Your task to perform on an android device: check the backup settings in the google photos Image 0: 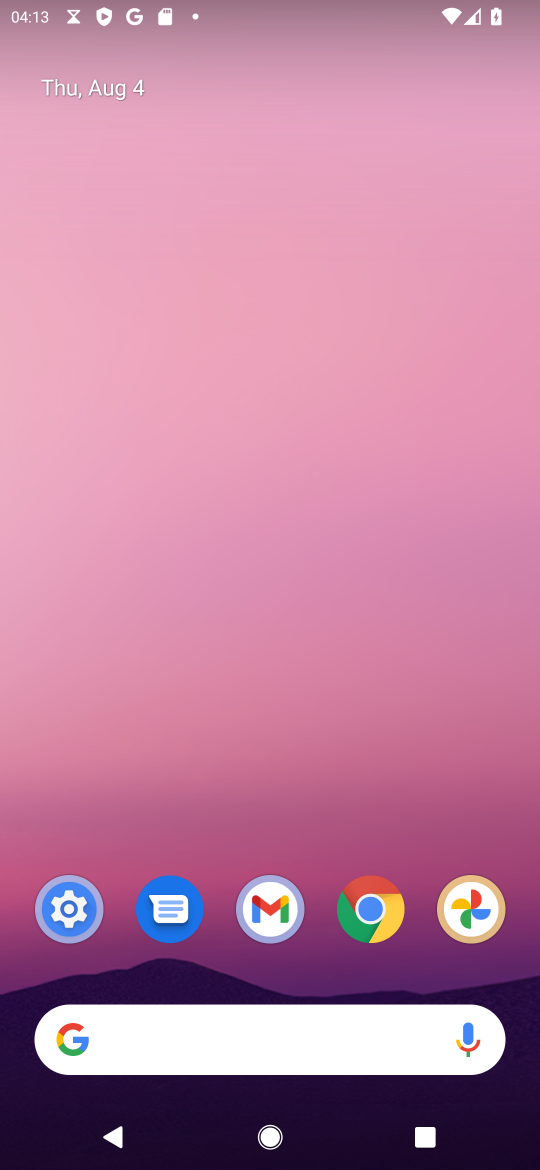
Step 0: click (462, 901)
Your task to perform on an android device: check the backup settings in the google photos Image 1: 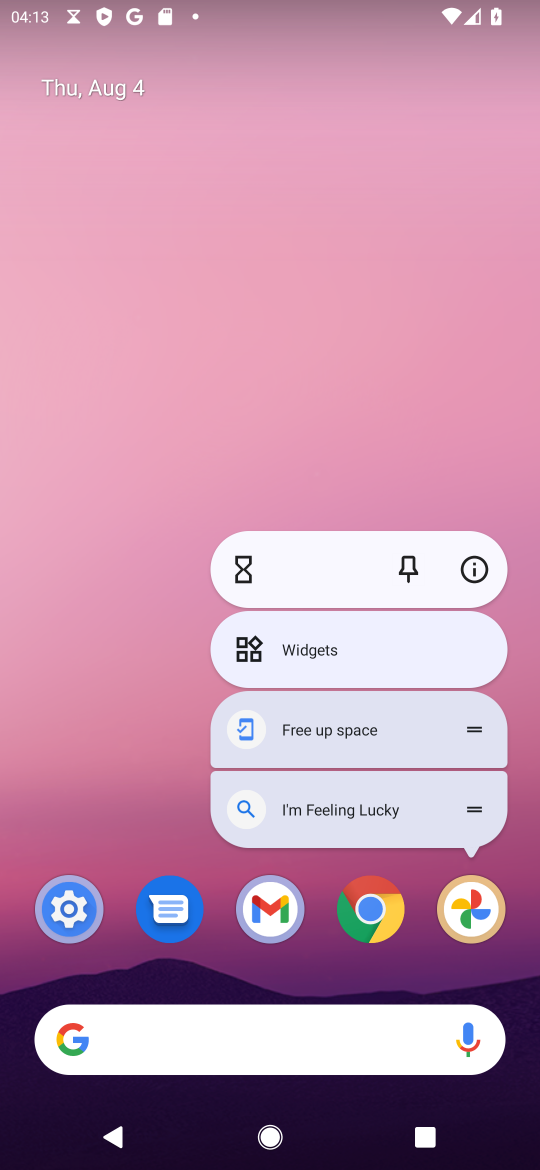
Step 1: click (465, 915)
Your task to perform on an android device: check the backup settings in the google photos Image 2: 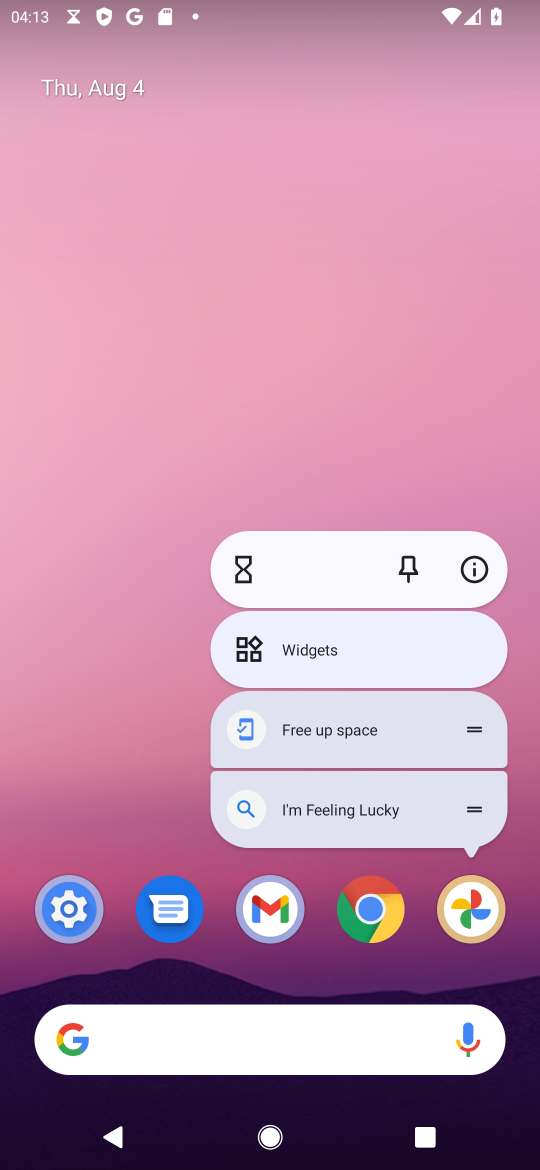
Step 2: click (476, 906)
Your task to perform on an android device: check the backup settings in the google photos Image 3: 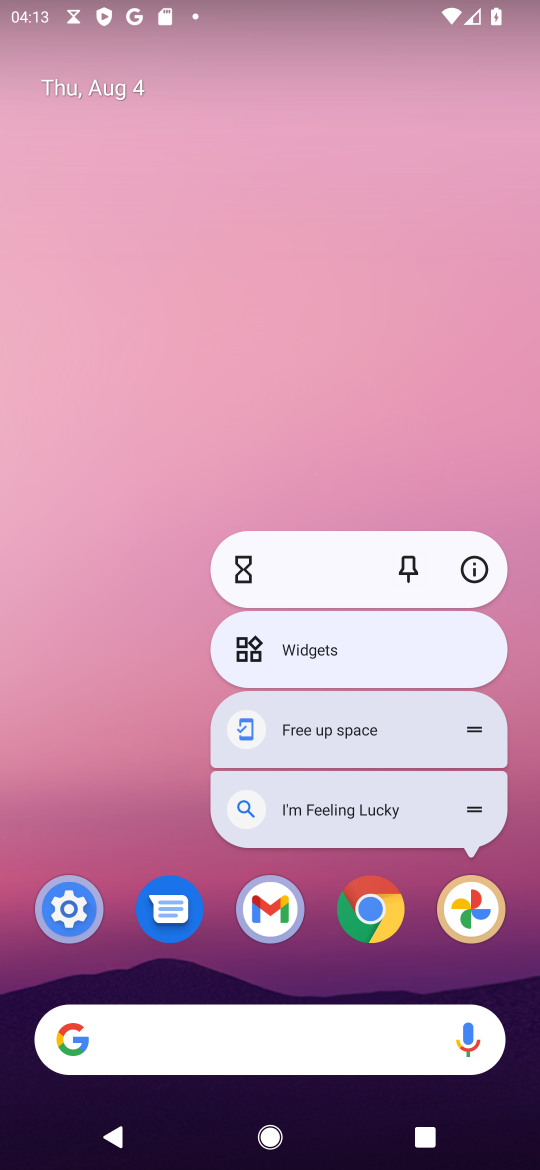
Step 3: click (476, 903)
Your task to perform on an android device: check the backup settings in the google photos Image 4: 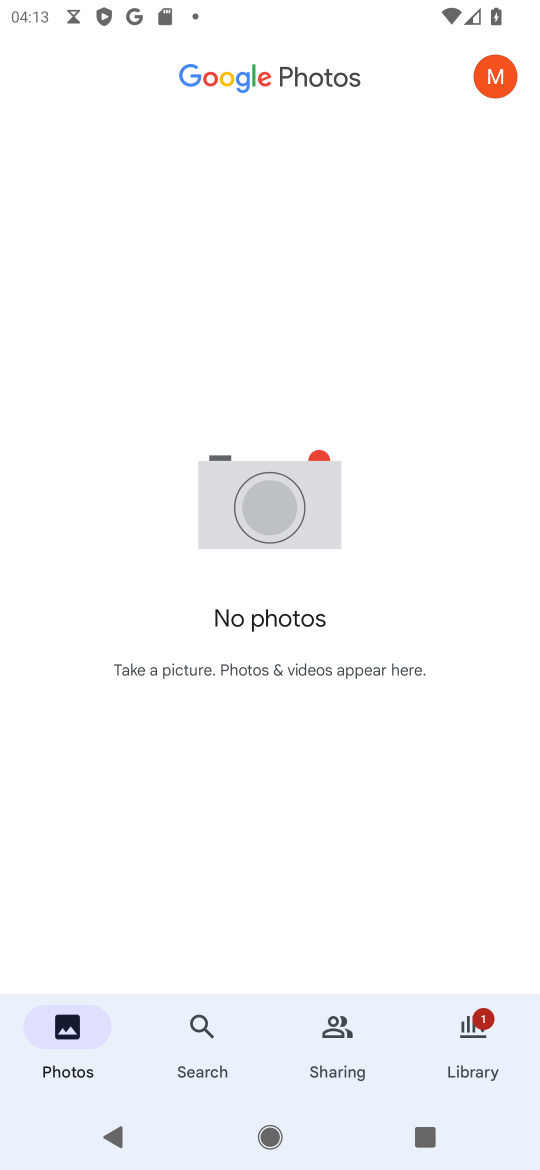
Step 4: click (498, 75)
Your task to perform on an android device: check the backup settings in the google photos Image 5: 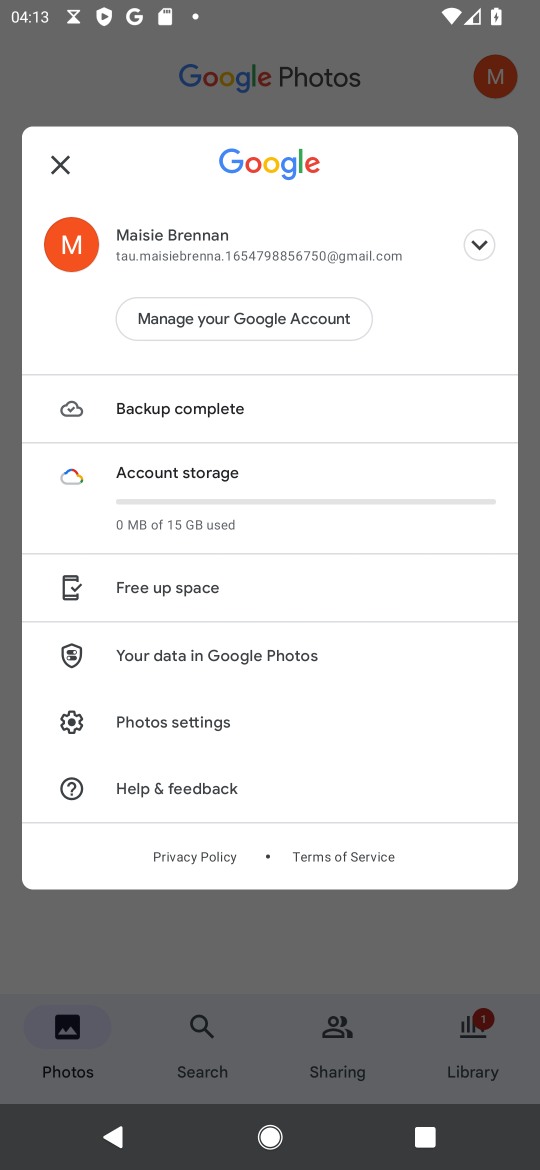
Step 5: click (212, 724)
Your task to perform on an android device: check the backup settings in the google photos Image 6: 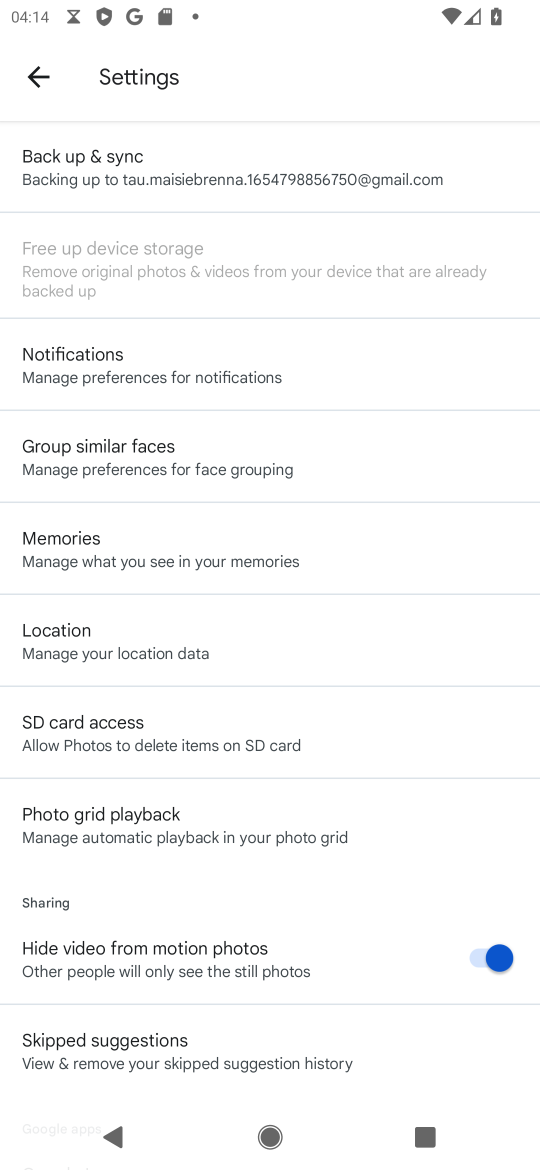
Step 6: click (144, 159)
Your task to perform on an android device: check the backup settings in the google photos Image 7: 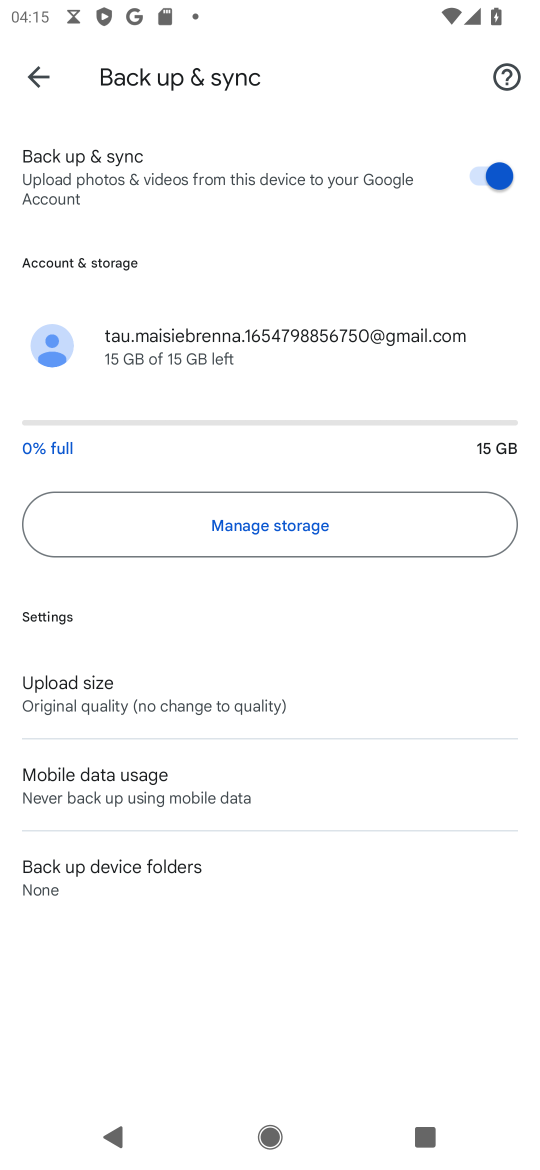
Step 7: task complete